Your task to perform on an android device: Open the Play Movies app and select the watchlist tab. Image 0: 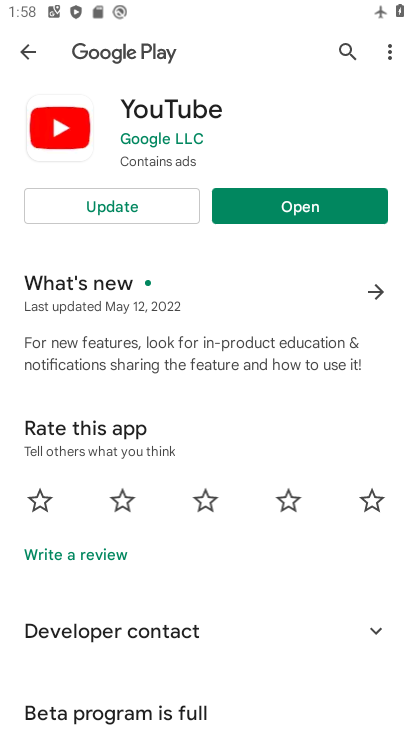
Step 0: press home button
Your task to perform on an android device: Open the Play Movies app and select the watchlist tab. Image 1: 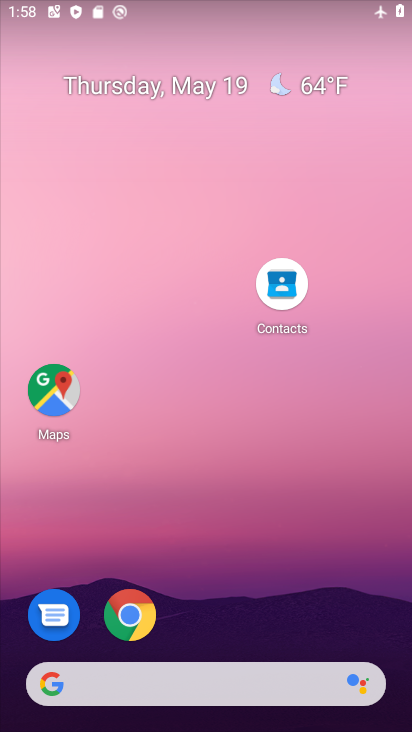
Step 1: drag from (256, 630) to (249, 136)
Your task to perform on an android device: Open the Play Movies app and select the watchlist tab. Image 2: 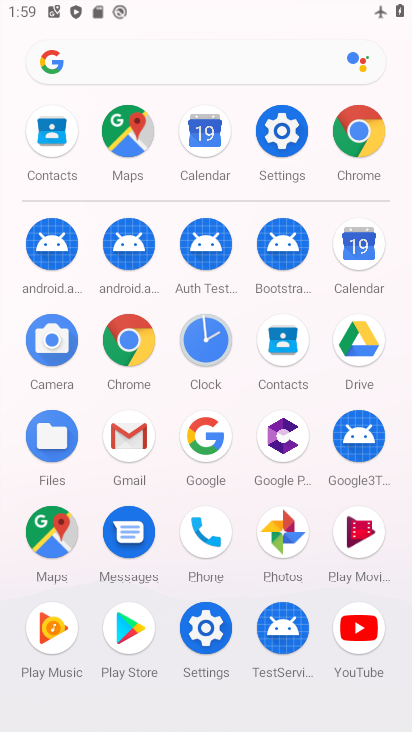
Step 2: click (355, 540)
Your task to perform on an android device: Open the Play Movies app and select the watchlist tab. Image 3: 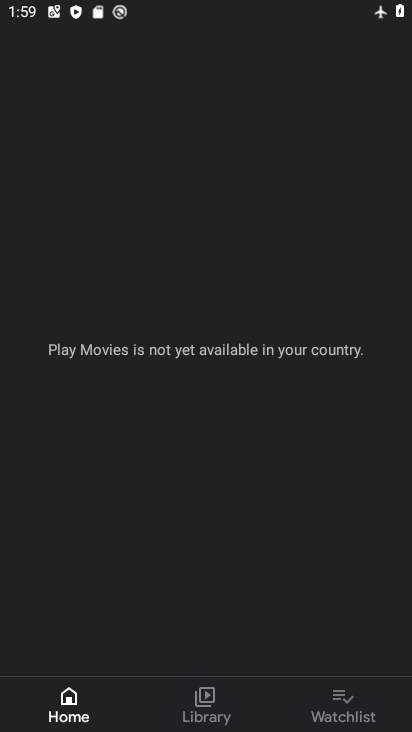
Step 3: click (324, 715)
Your task to perform on an android device: Open the Play Movies app and select the watchlist tab. Image 4: 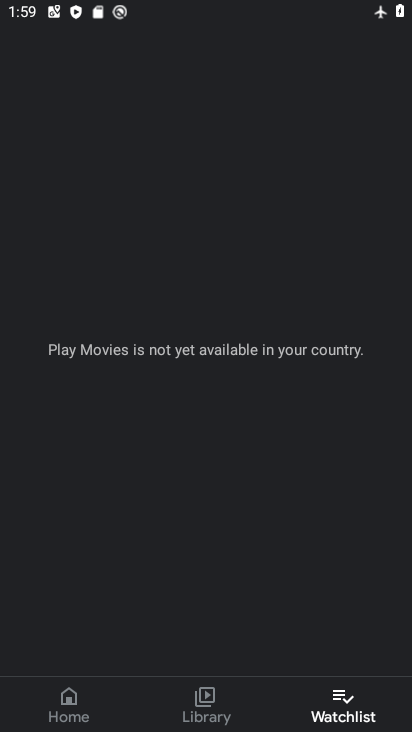
Step 4: task complete